Your task to perform on an android device: add a contact in the contacts app Image 0: 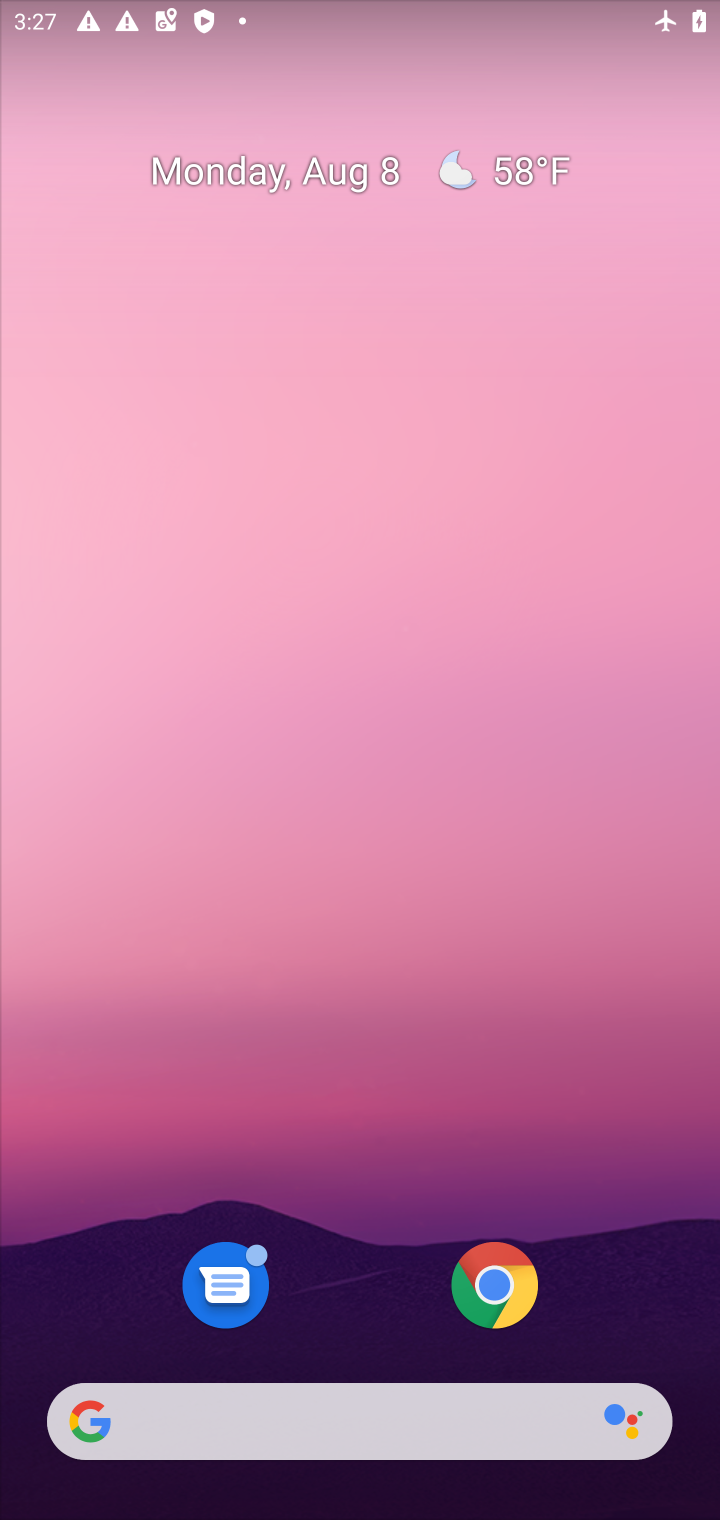
Step 0: press back button
Your task to perform on an android device: add a contact in the contacts app Image 1: 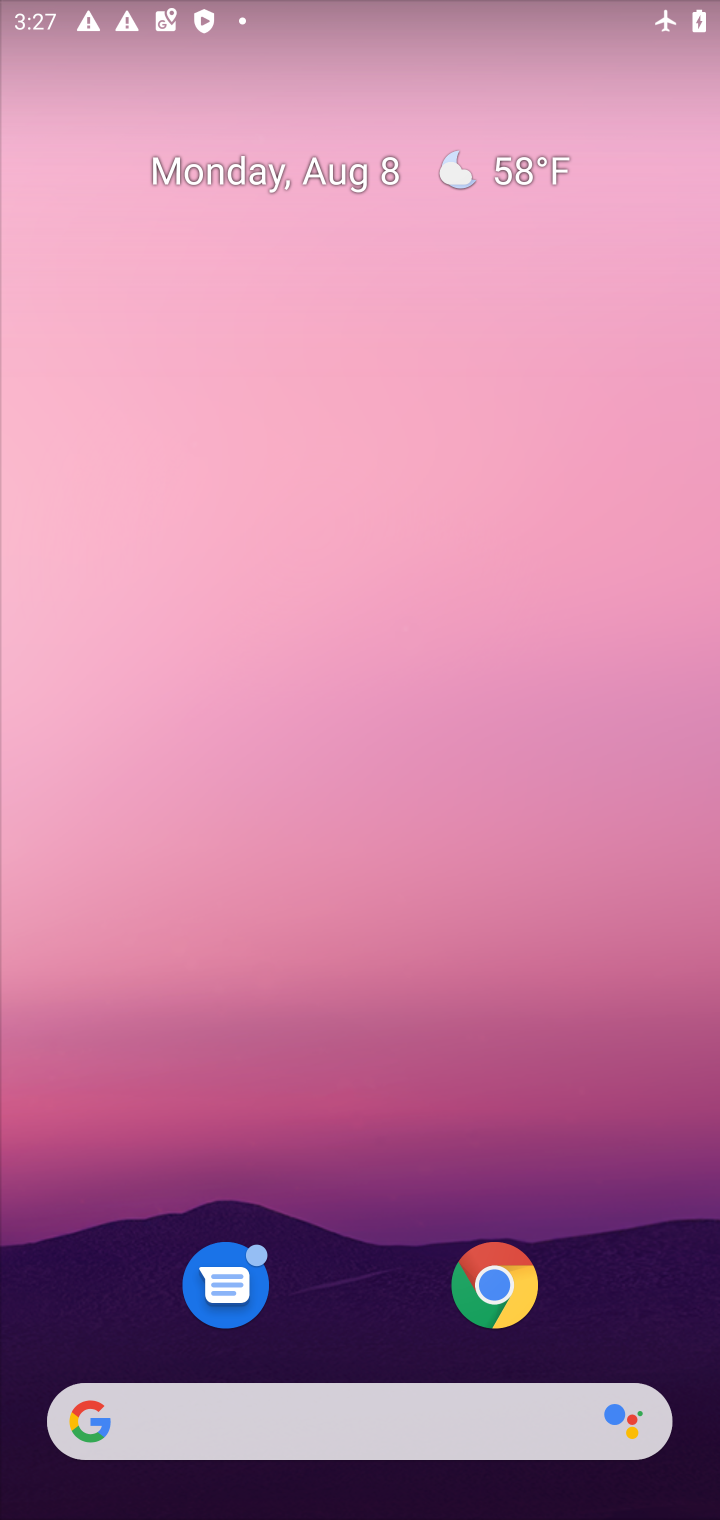
Step 1: drag from (495, 936) to (630, 27)
Your task to perform on an android device: add a contact in the contacts app Image 2: 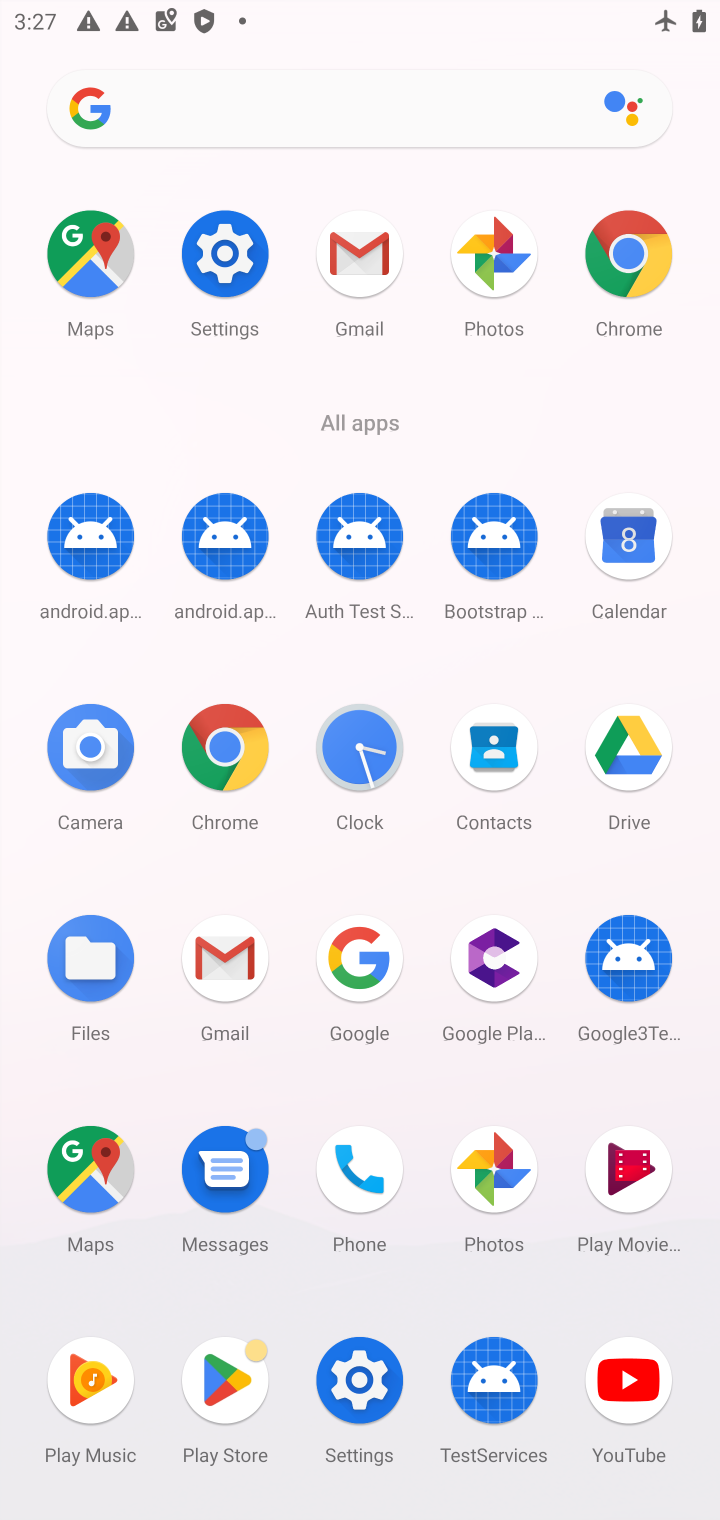
Step 2: click (496, 739)
Your task to perform on an android device: add a contact in the contacts app Image 3: 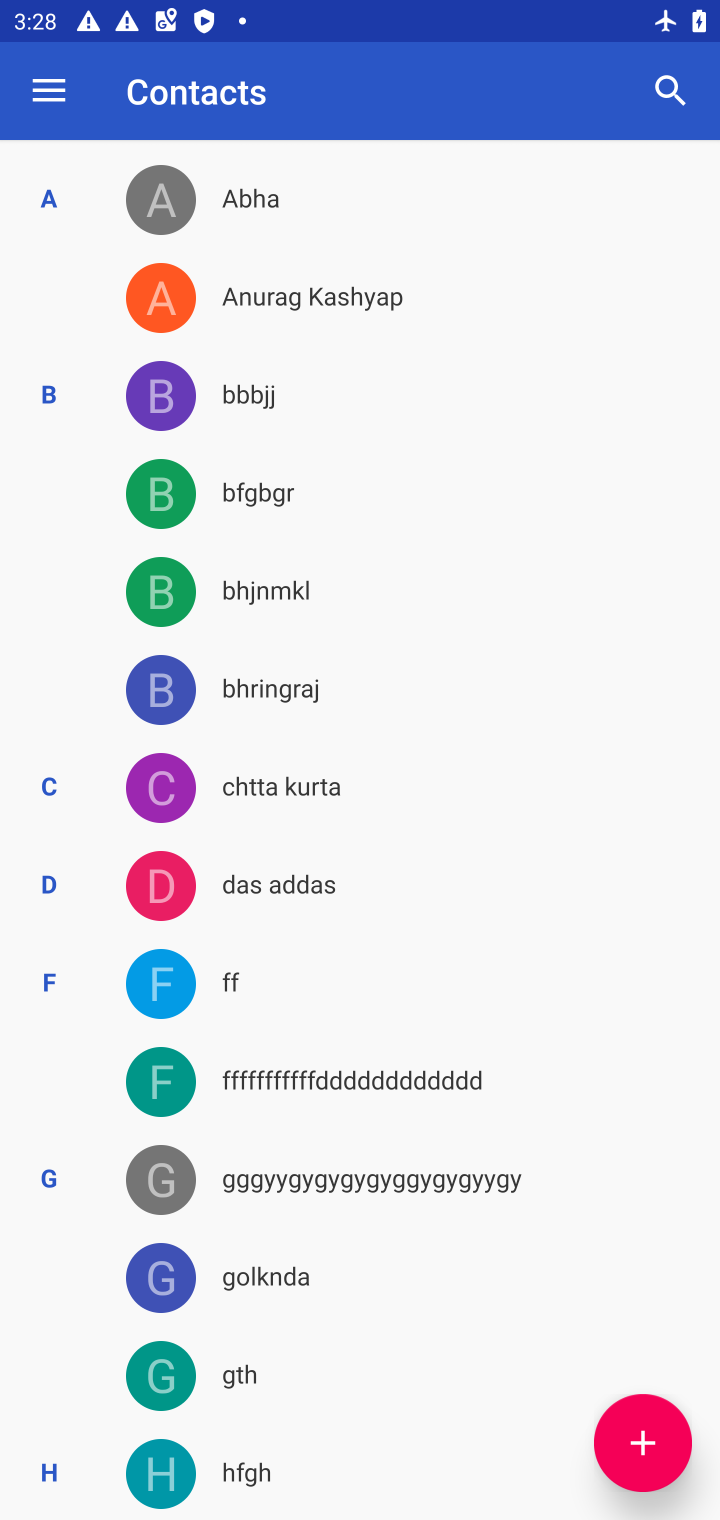
Step 3: click (646, 1449)
Your task to perform on an android device: add a contact in the contacts app Image 4: 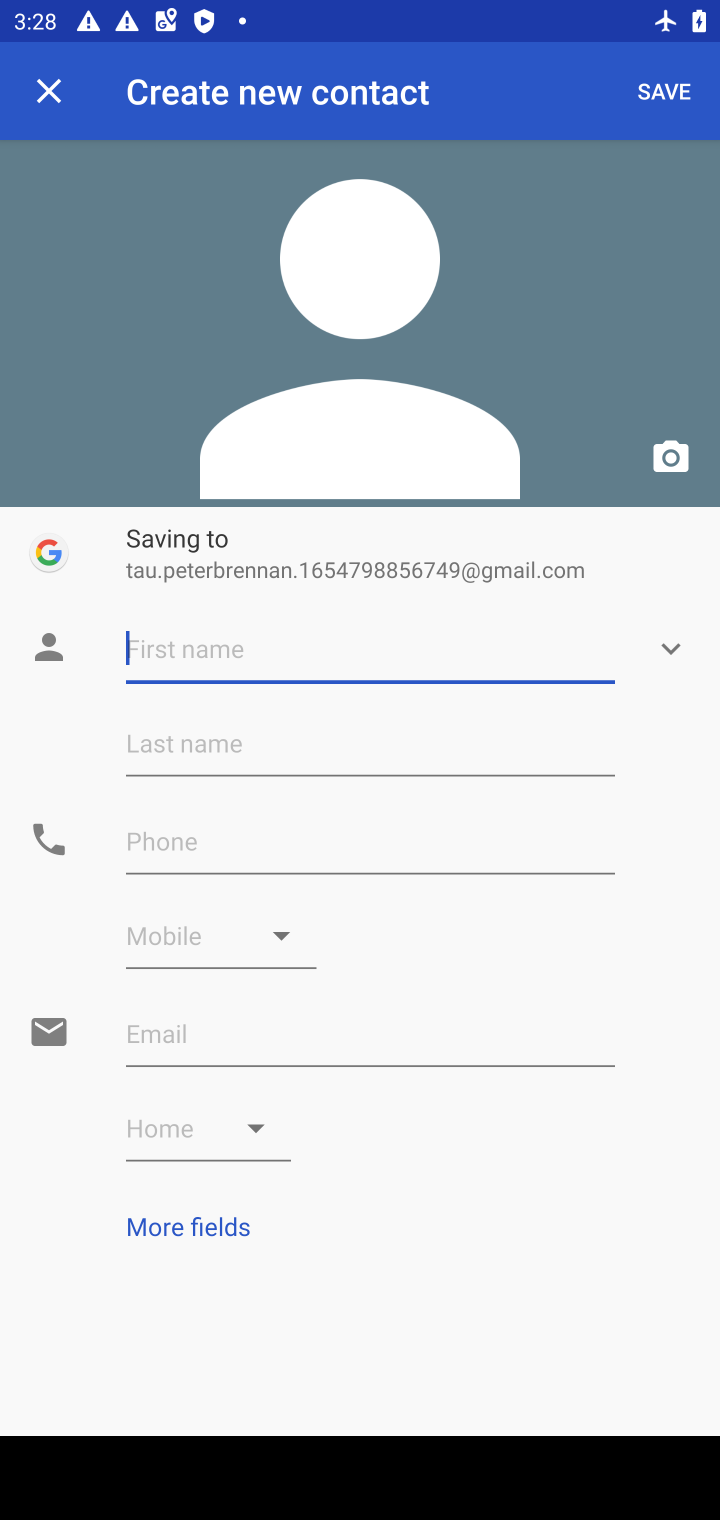
Step 4: click (179, 630)
Your task to perform on an android device: add a contact in the contacts app Image 5: 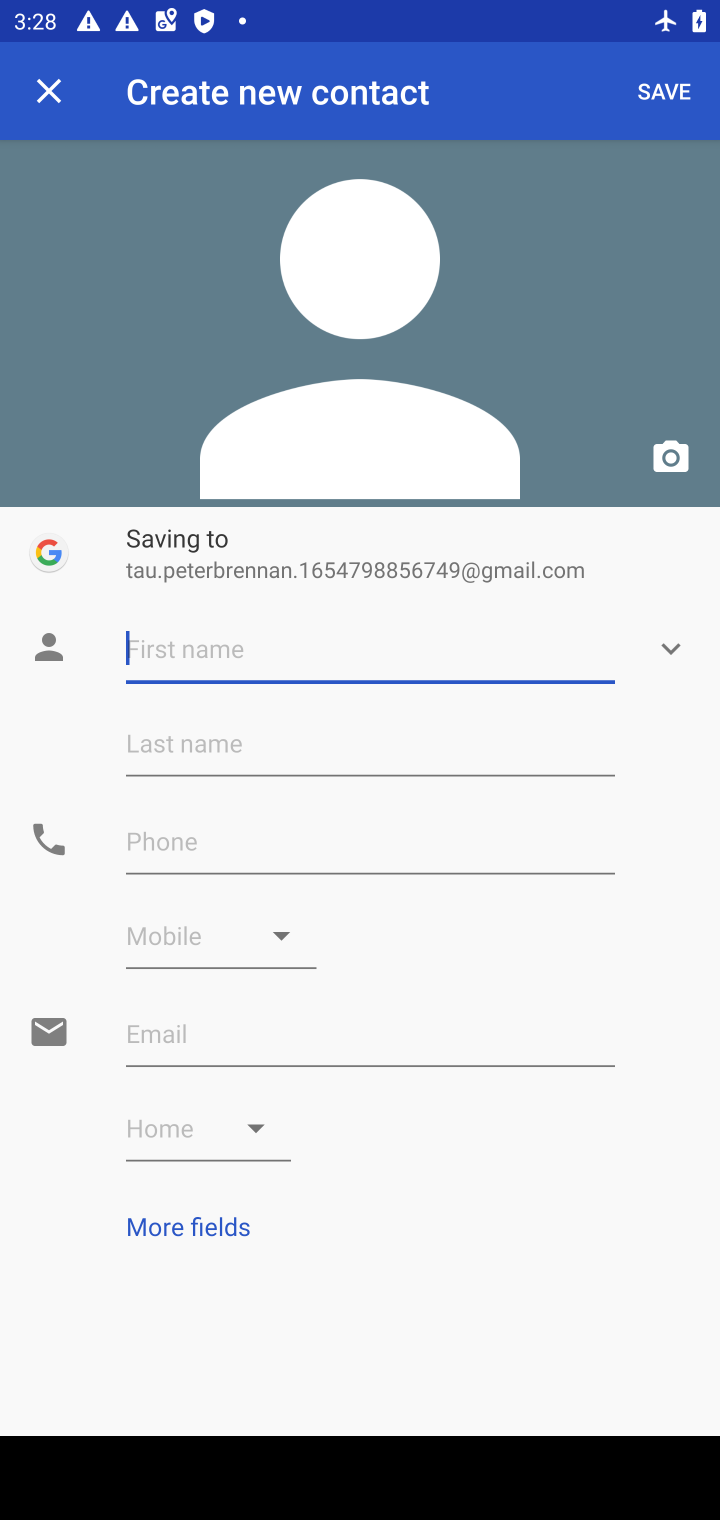
Step 5: type "hghg"
Your task to perform on an android device: add a contact in the contacts app Image 6: 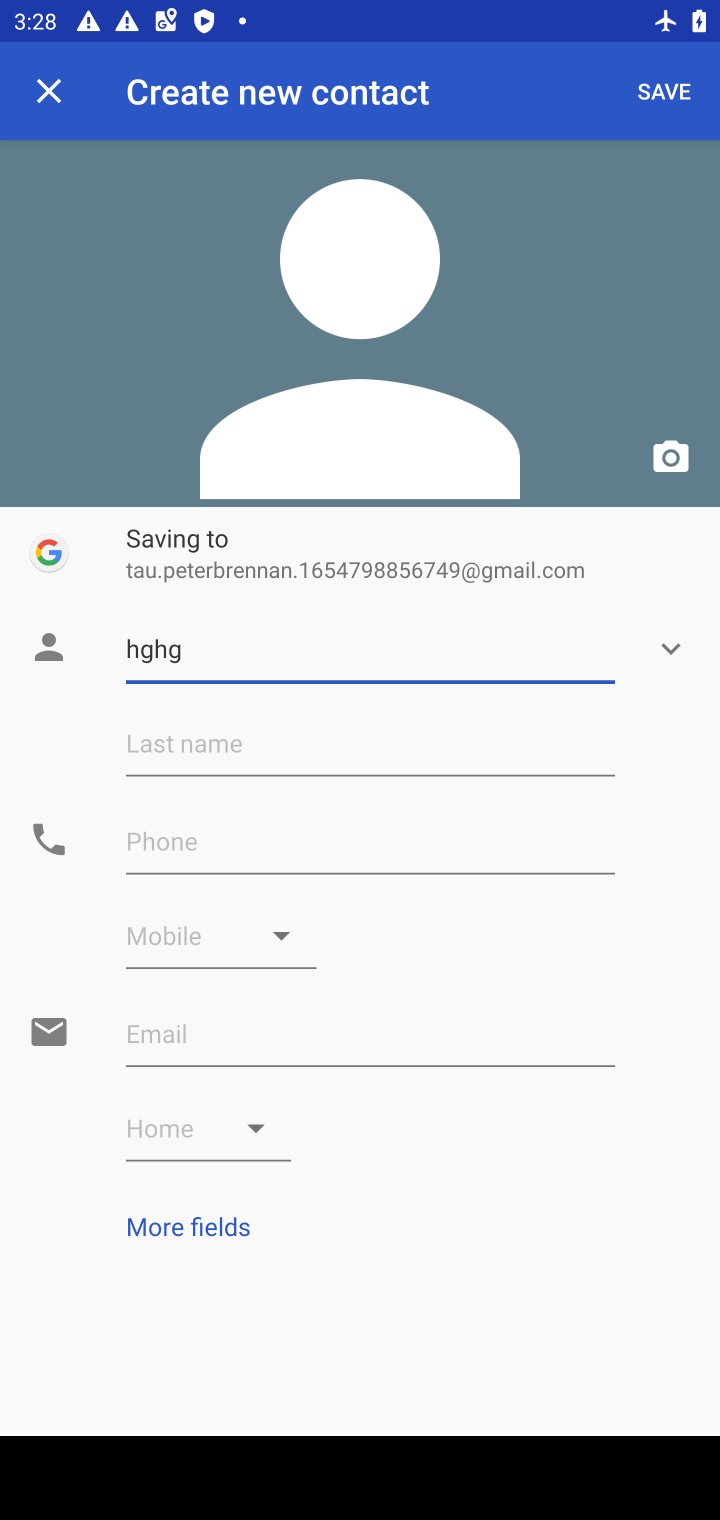
Step 6: click (221, 834)
Your task to perform on an android device: add a contact in the contacts app Image 7: 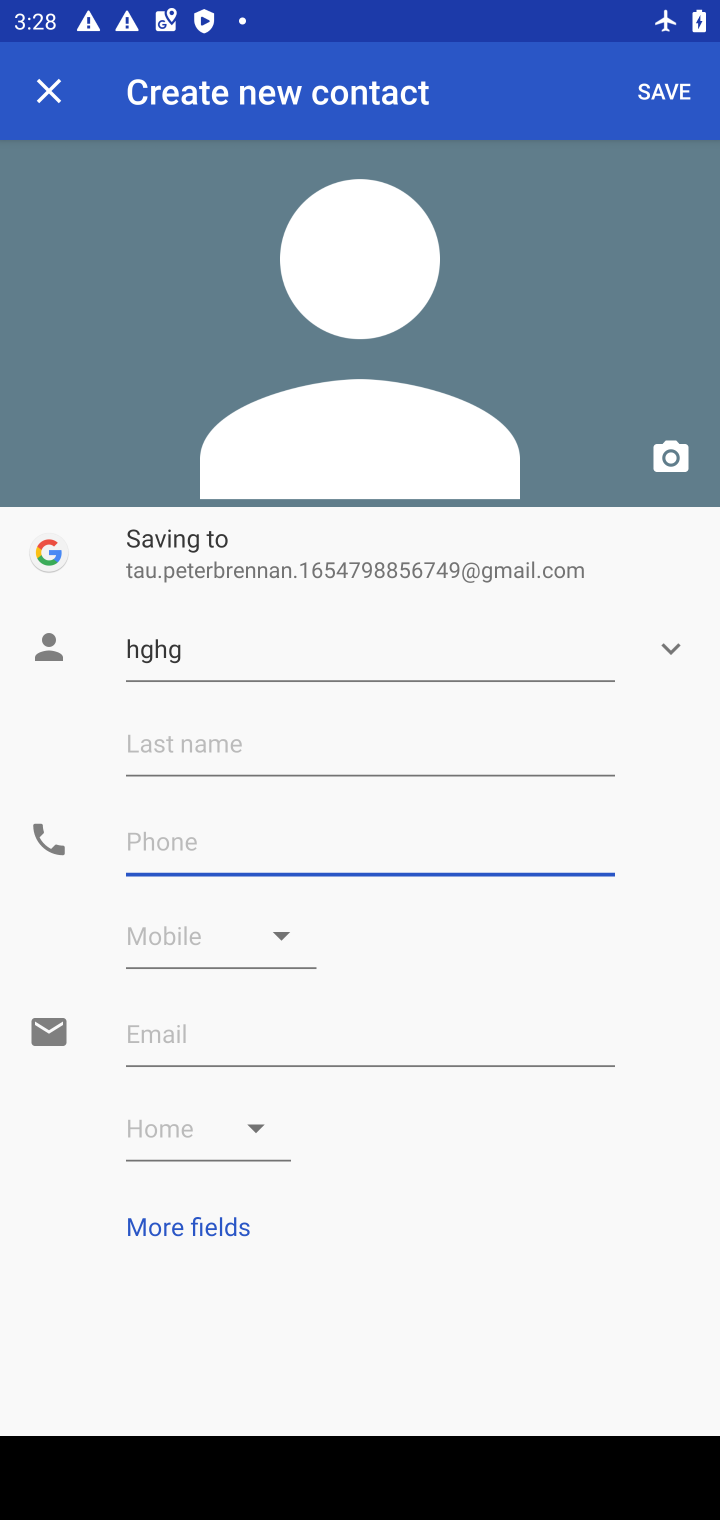
Step 7: type "767676"
Your task to perform on an android device: add a contact in the contacts app Image 8: 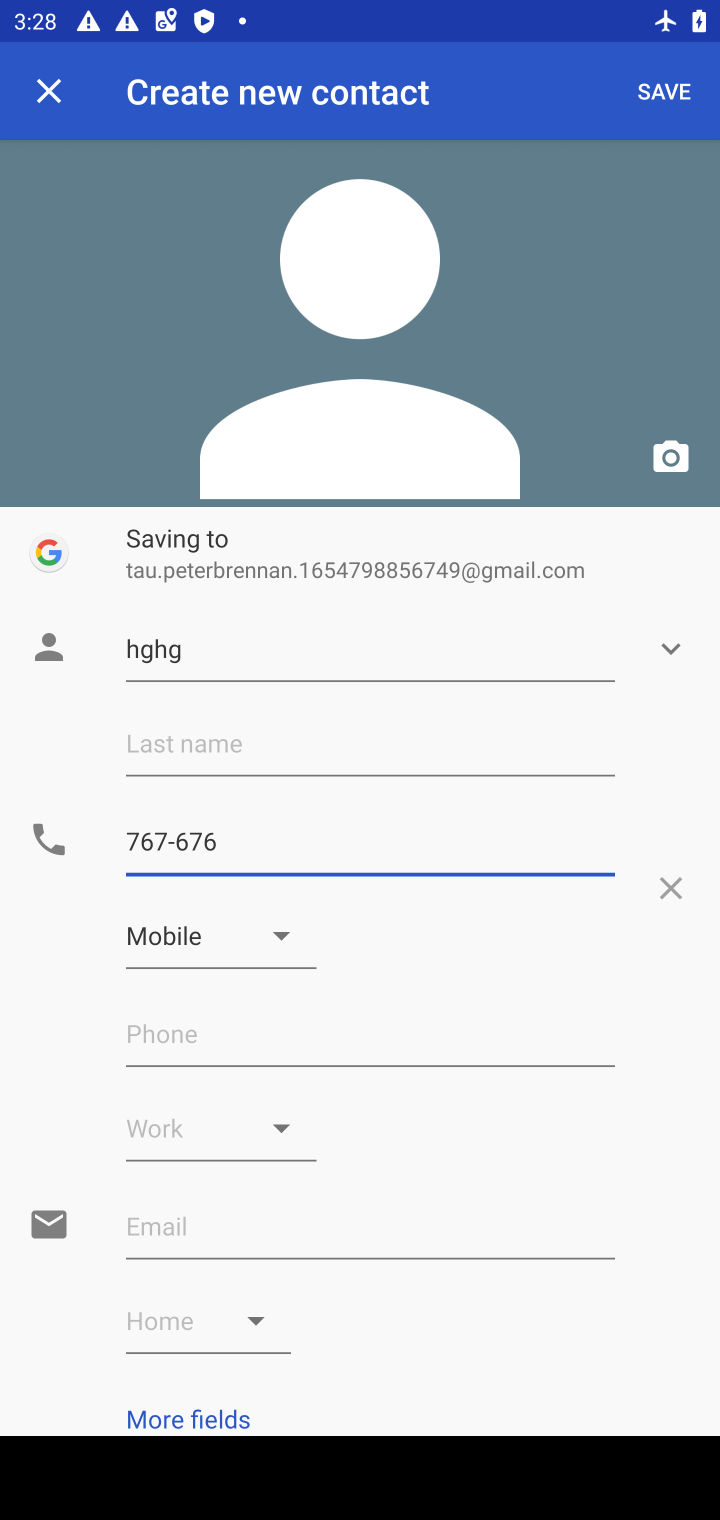
Step 8: click (672, 102)
Your task to perform on an android device: add a contact in the contacts app Image 9: 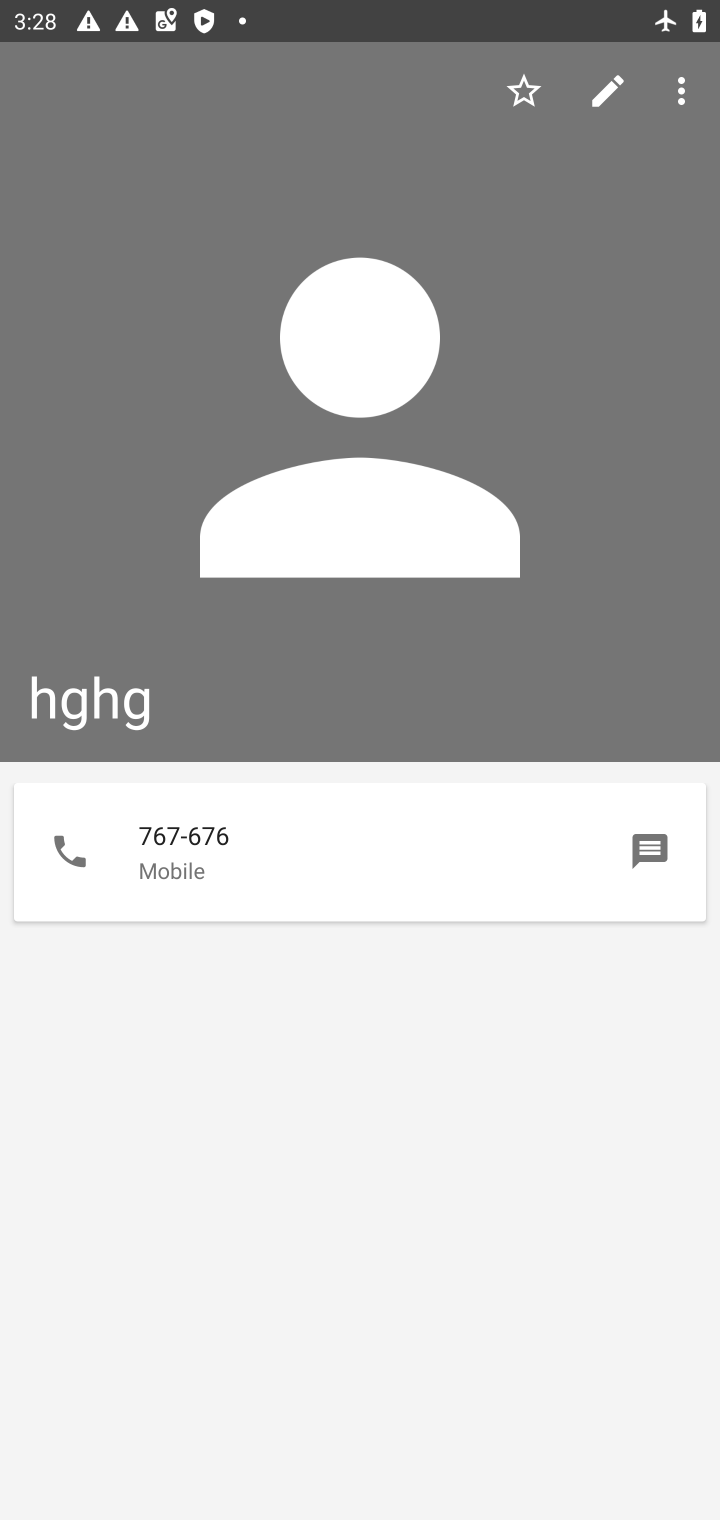
Step 9: task complete